Your task to perform on an android device: turn on location history Image 0: 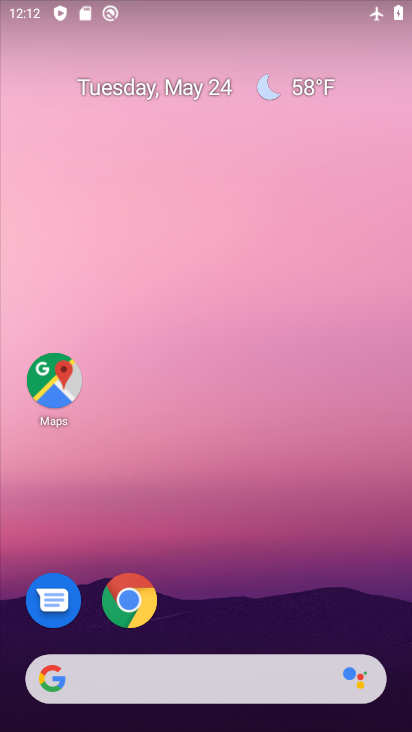
Step 0: drag from (317, 573) to (210, 13)
Your task to perform on an android device: turn on location history Image 1: 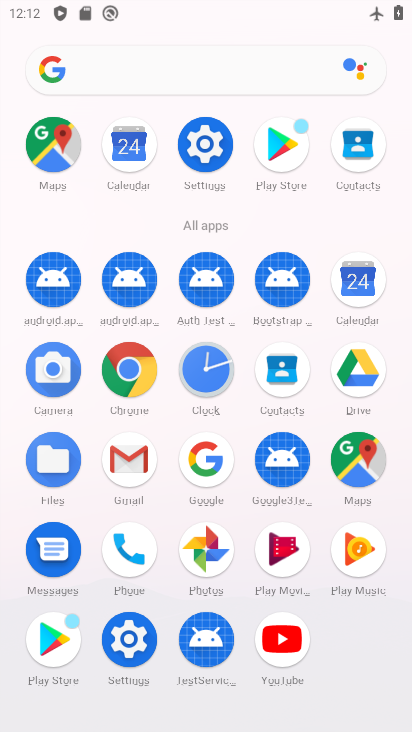
Step 1: click (197, 173)
Your task to perform on an android device: turn on location history Image 2: 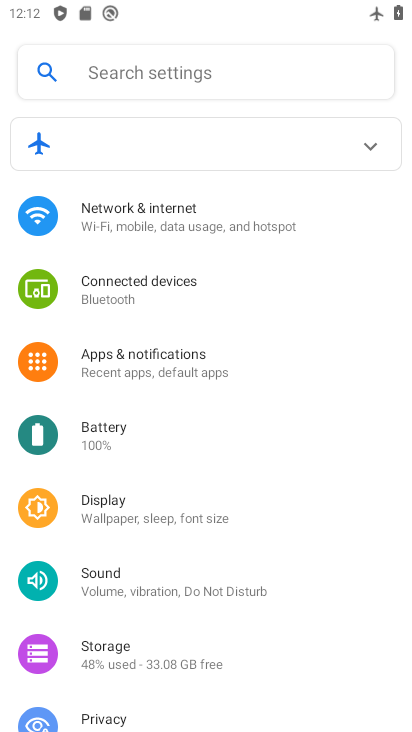
Step 2: drag from (289, 602) to (257, 107)
Your task to perform on an android device: turn on location history Image 3: 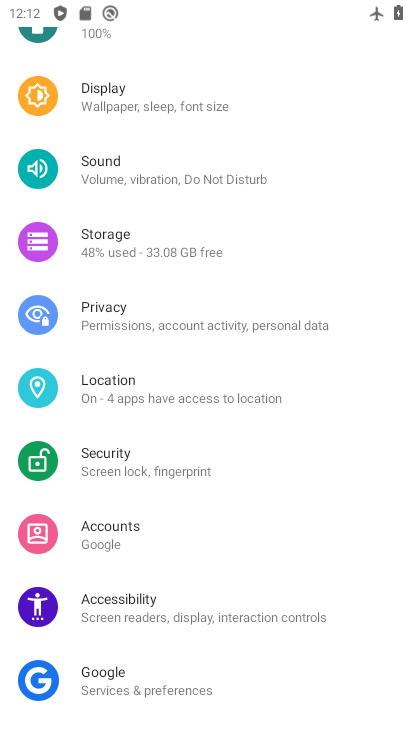
Step 3: click (192, 383)
Your task to perform on an android device: turn on location history Image 4: 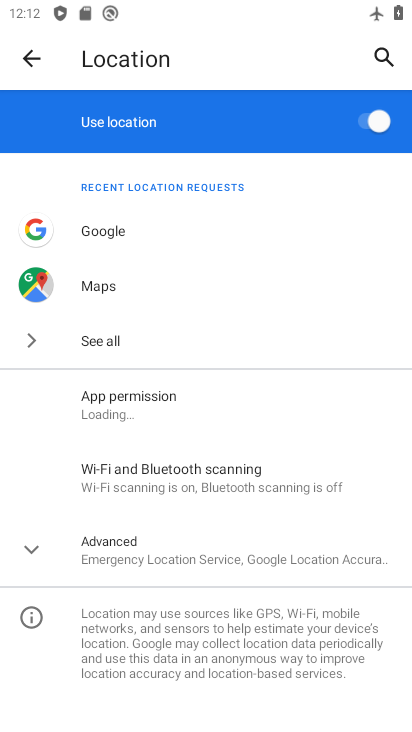
Step 4: click (184, 551)
Your task to perform on an android device: turn on location history Image 5: 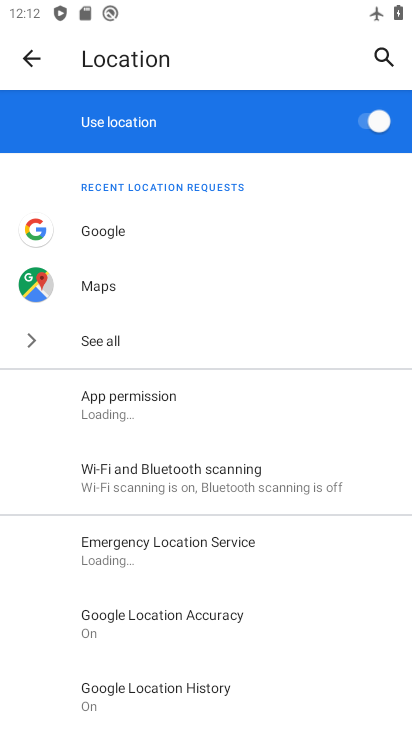
Step 5: click (234, 691)
Your task to perform on an android device: turn on location history Image 6: 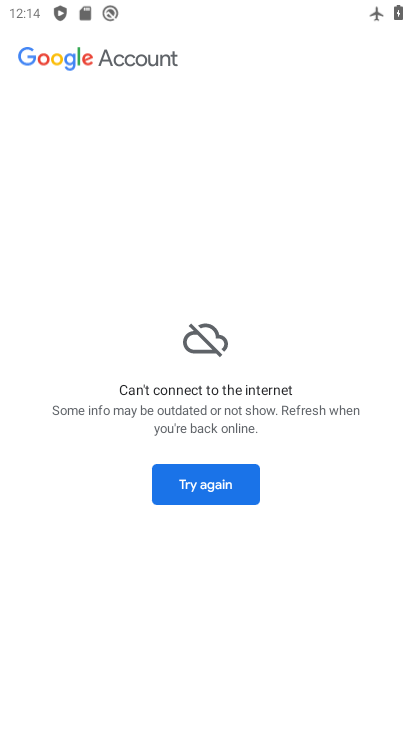
Step 6: task complete